Your task to perform on an android device: Clear the cart on bestbuy. Add "energizer triple a" to the cart on bestbuy, then select checkout. Image 0: 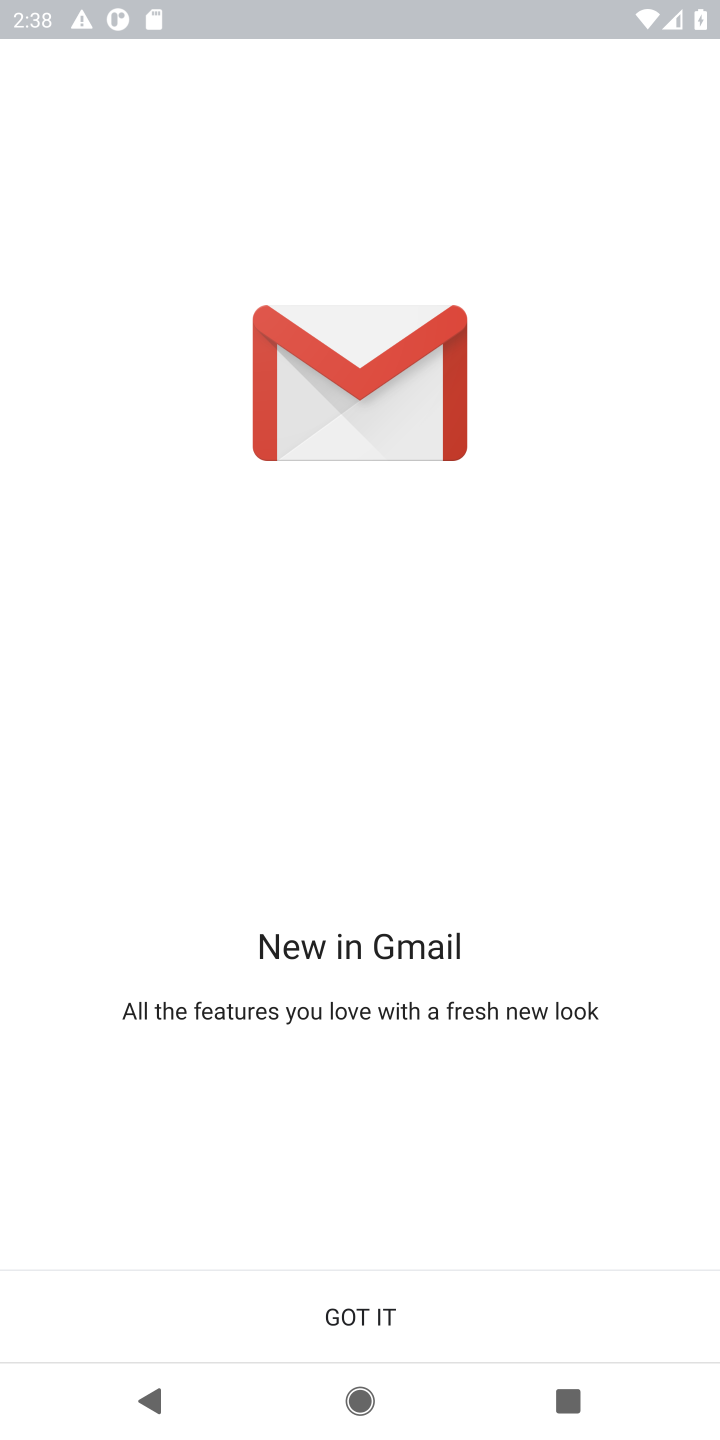
Step 0: press home button
Your task to perform on an android device: Clear the cart on bestbuy. Add "energizer triple a" to the cart on bestbuy, then select checkout. Image 1: 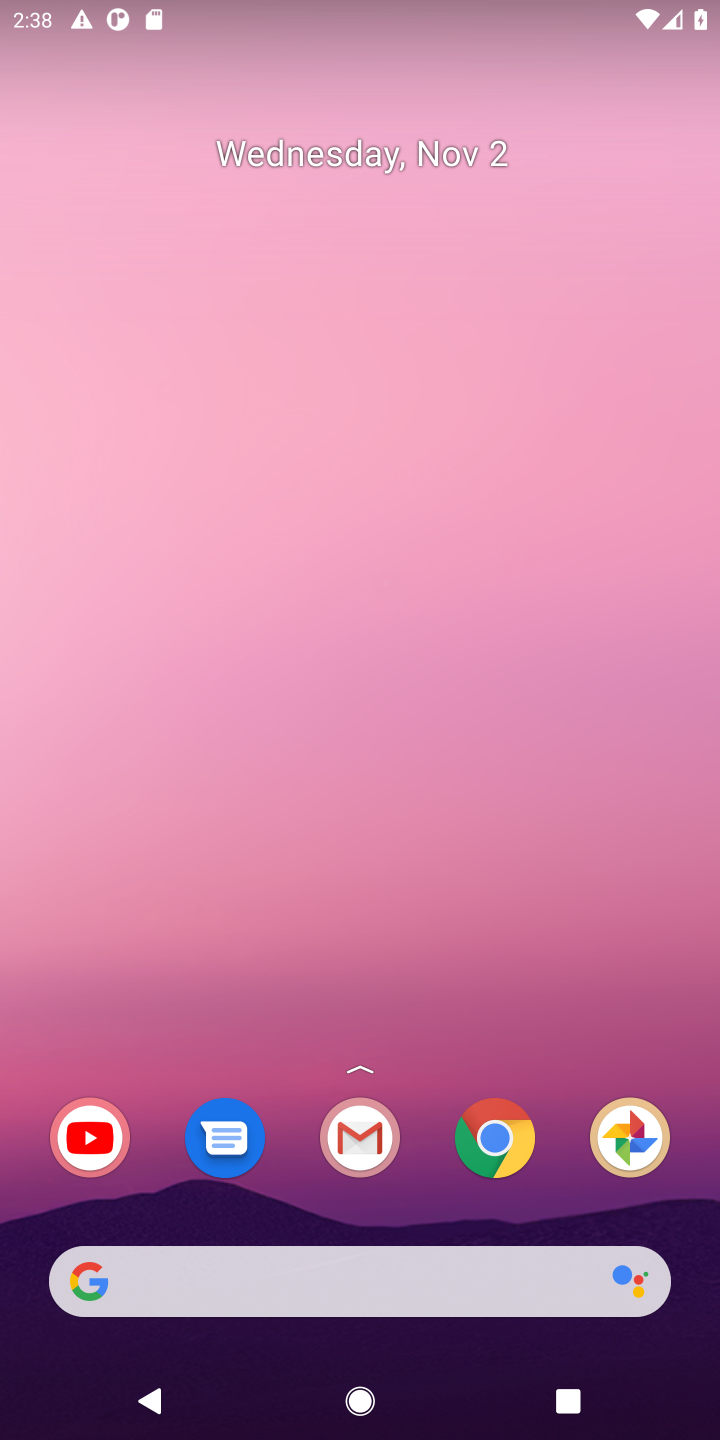
Step 1: click (127, 1265)
Your task to perform on an android device: Clear the cart on bestbuy. Add "energizer triple a" to the cart on bestbuy, then select checkout. Image 2: 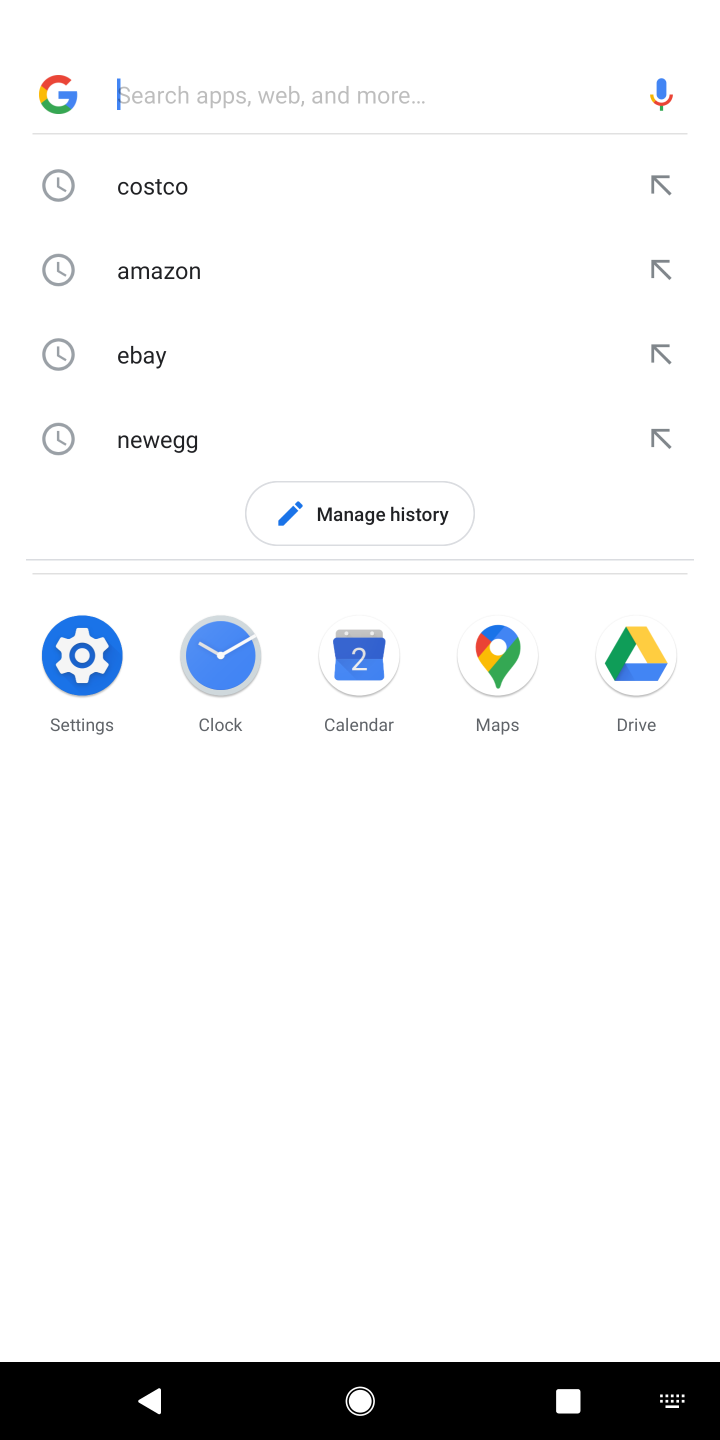
Step 2: press enter
Your task to perform on an android device: Clear the cart on bestbuy. Add "energizer triple a" to the cart on bestbuy, then select checkout. Image 3: 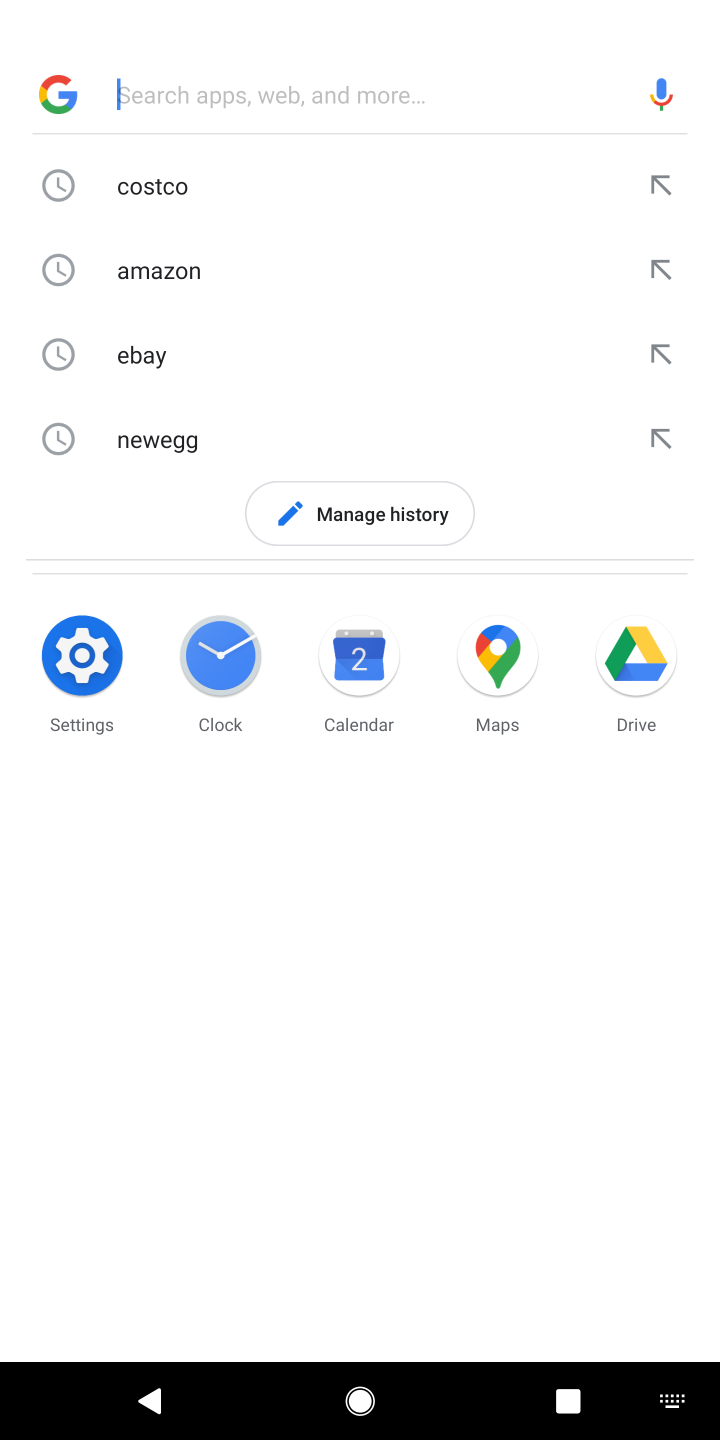
Step 3: type "bestbuy"
Your task to perform on an android device: Clear the cart on bestbuy. Add "energizer triple a" to the cart on bestbuy, then select checkout. Image 4: 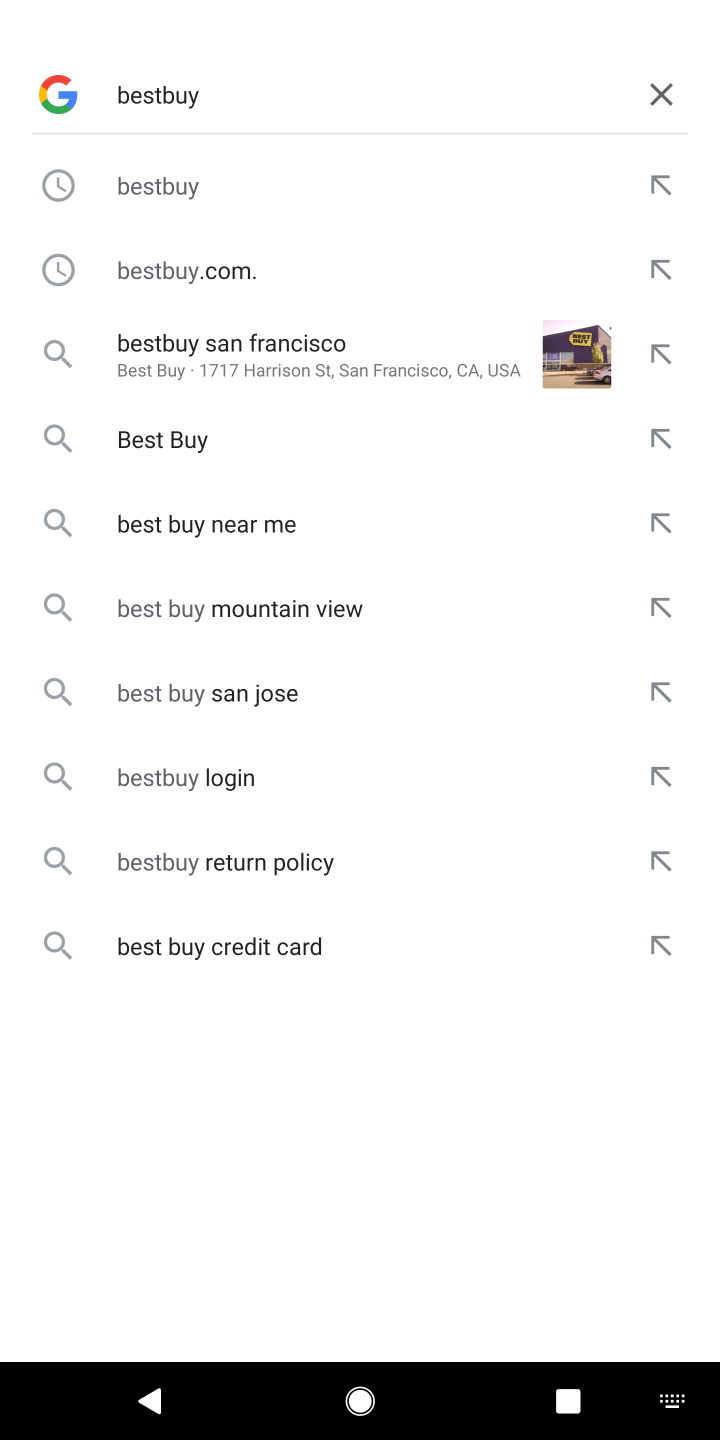
Step 4: press enter
Your task to perform on an android device: Clear the cart on bestbuy. Add "energizer triple a" to the cart on bestbuy, then select checkout. Image 5: 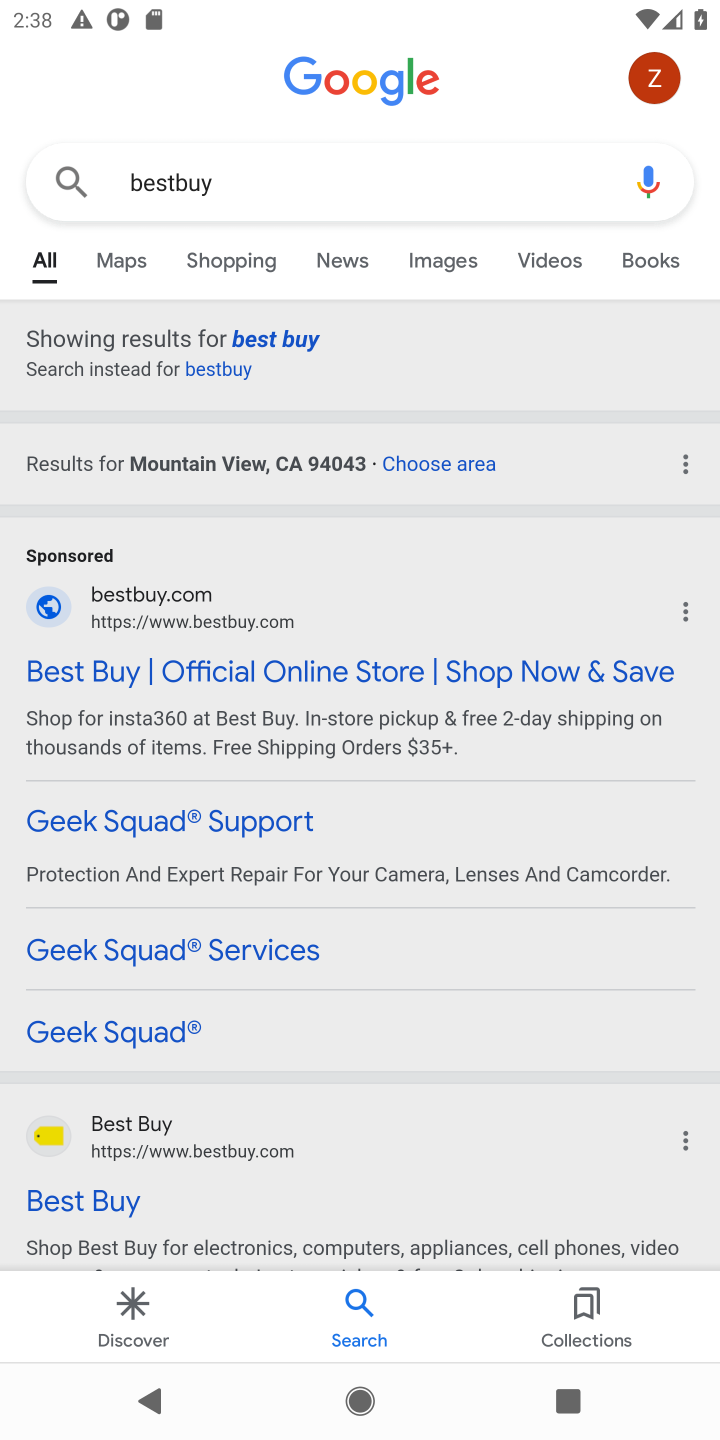
Step 5: click (219, 674)
Your task to perform on an android device: Clear the cart on bestbuy. Add "energizer triple a" to the cart on bestbuy, then select checkout. Image 6: 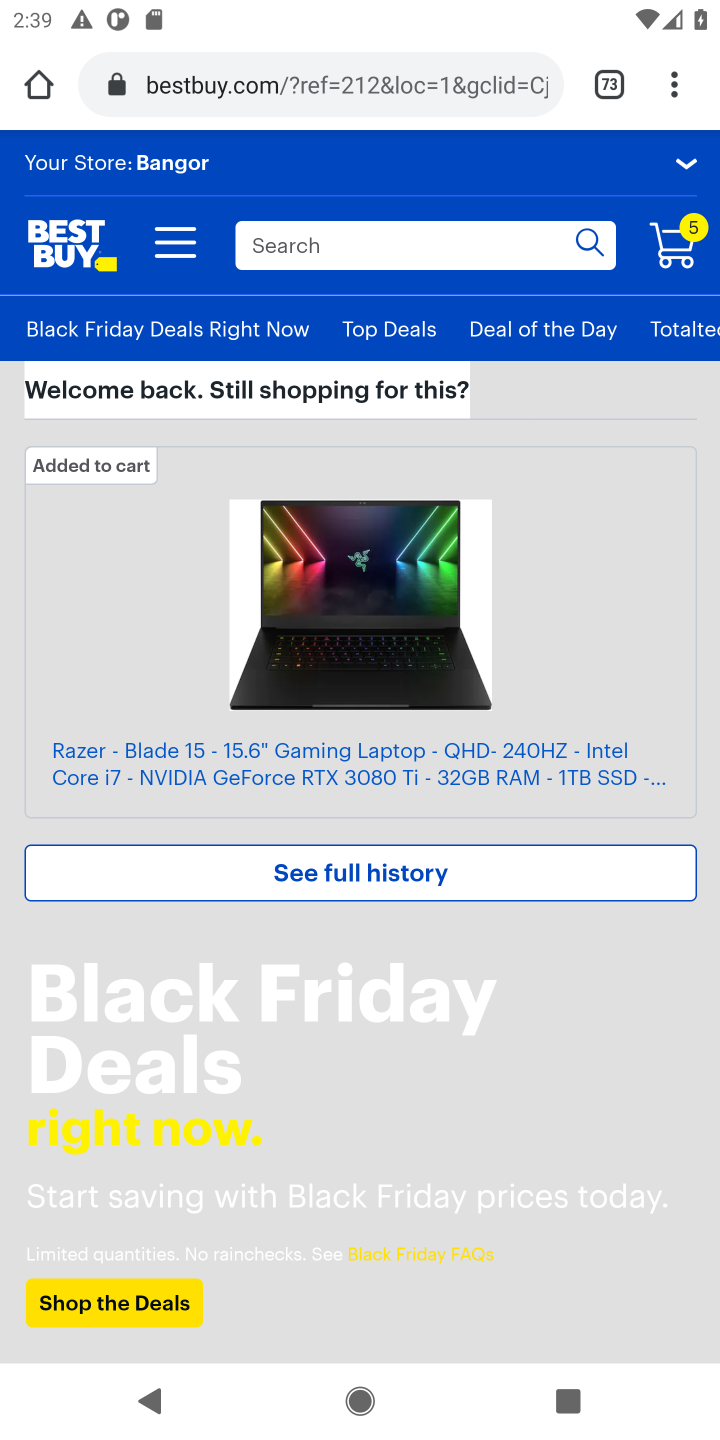
Step 6: click (675, 248)
Your task to perform on an android device: Clear the cart on bestbuy. Add "energizer triple a" to the cart on bestbuy, then select checkout. Image 7: 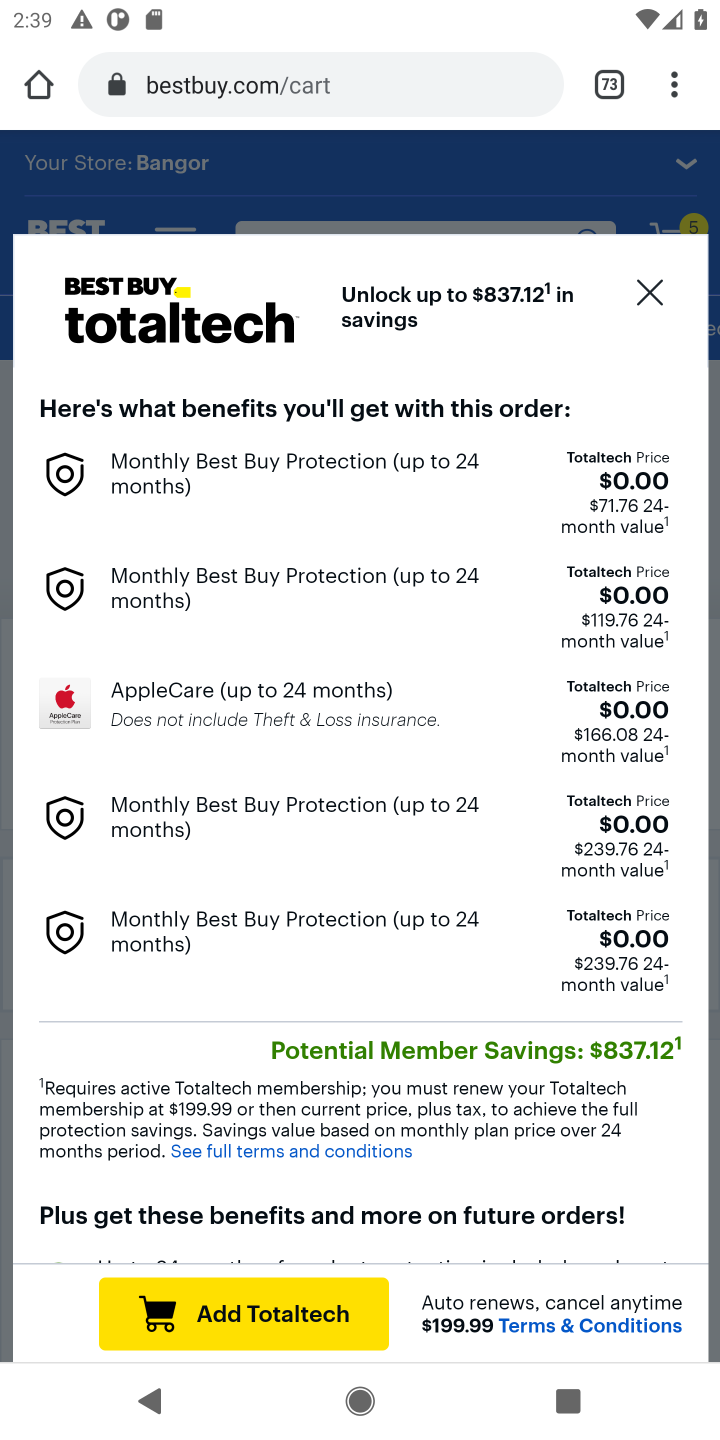
Step 7: click (654, 295)
Your task to perform on an android device: Clear the cart on bestbuy. Add "energizer triple a" to the cart on bestbuy, then select checkout. Image 8: 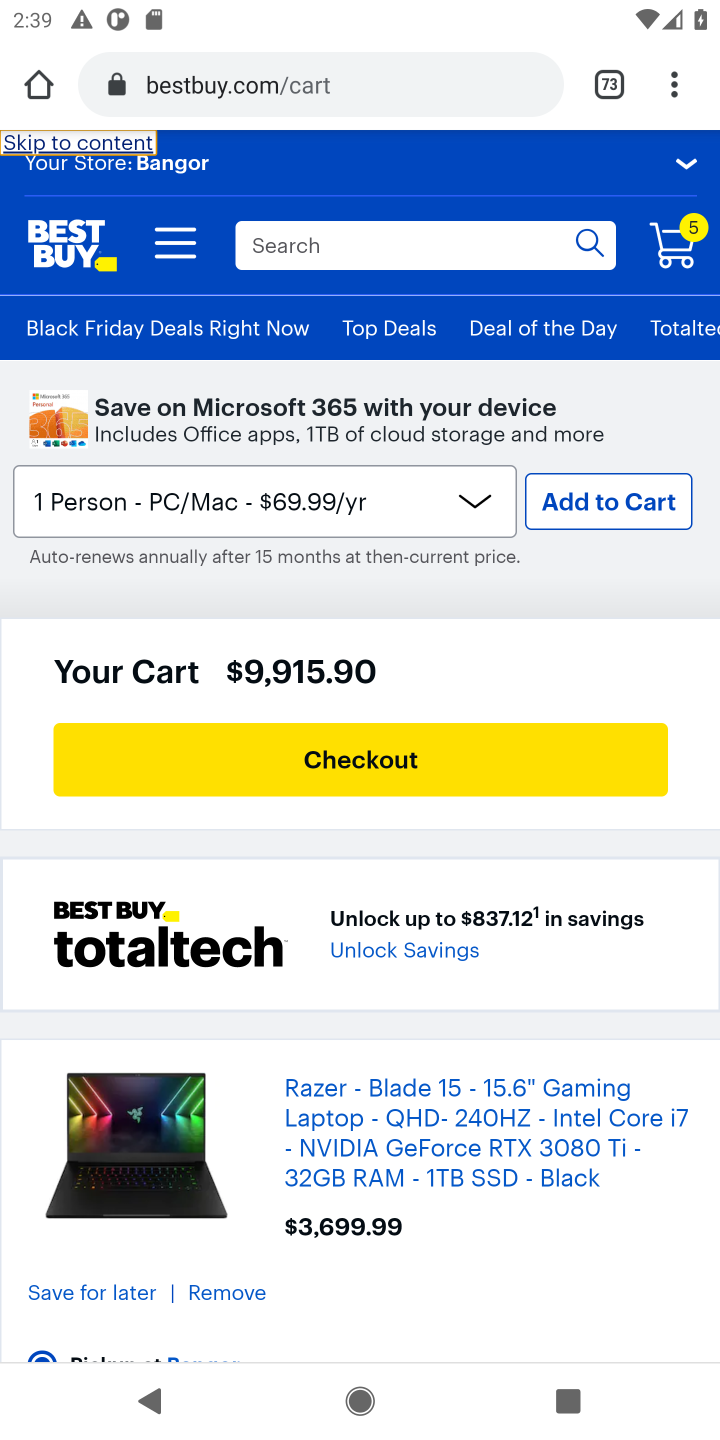
Step 8: click (221, 1296)
Your task to perform on an android device: Clear the cart on bestbuy. Add "energizer triple a" to the cart on bestbuy, then select checkout. Image 9: 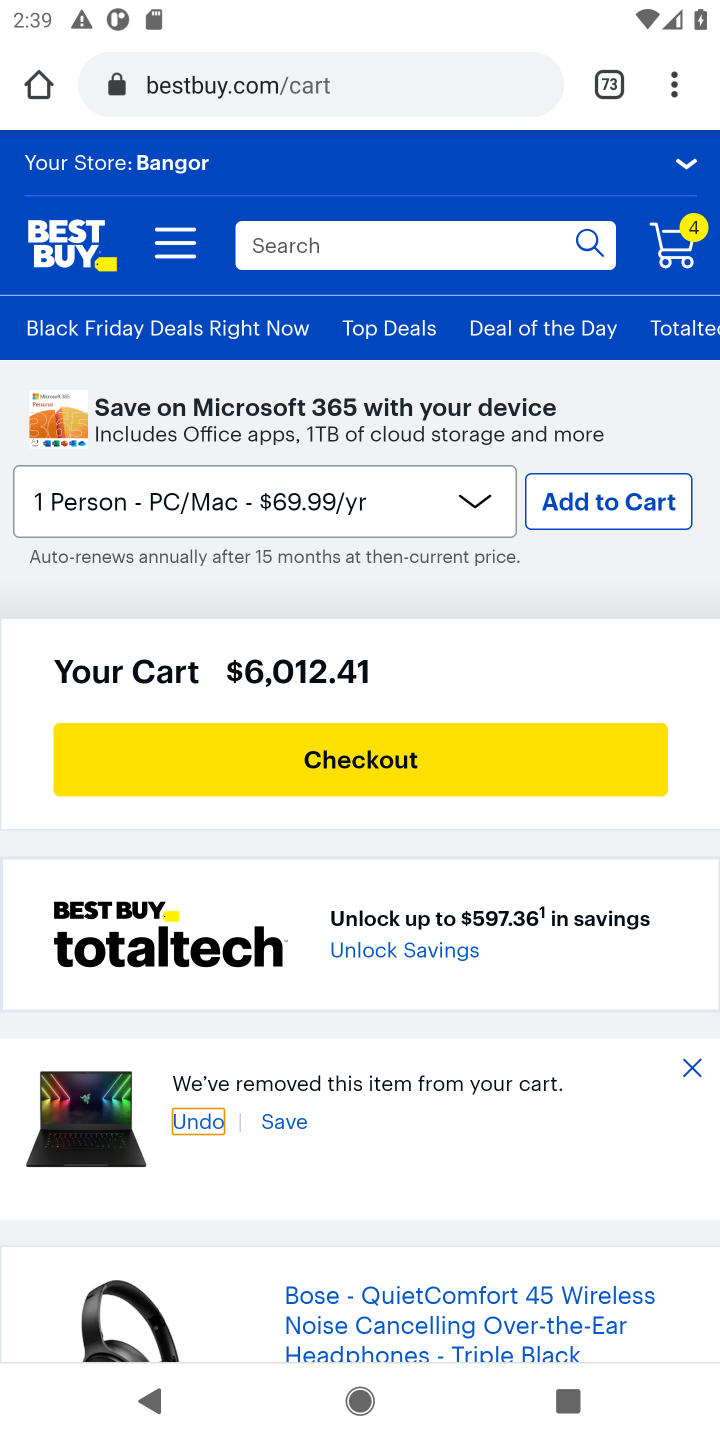
Step 9: drag from (318, 1130) to (369, 693)
Your task to perform on an android device: Clear the cart on bestbuy. Add "energizer triple a" to the cart on bestbuy, then select checkout. Image 10: 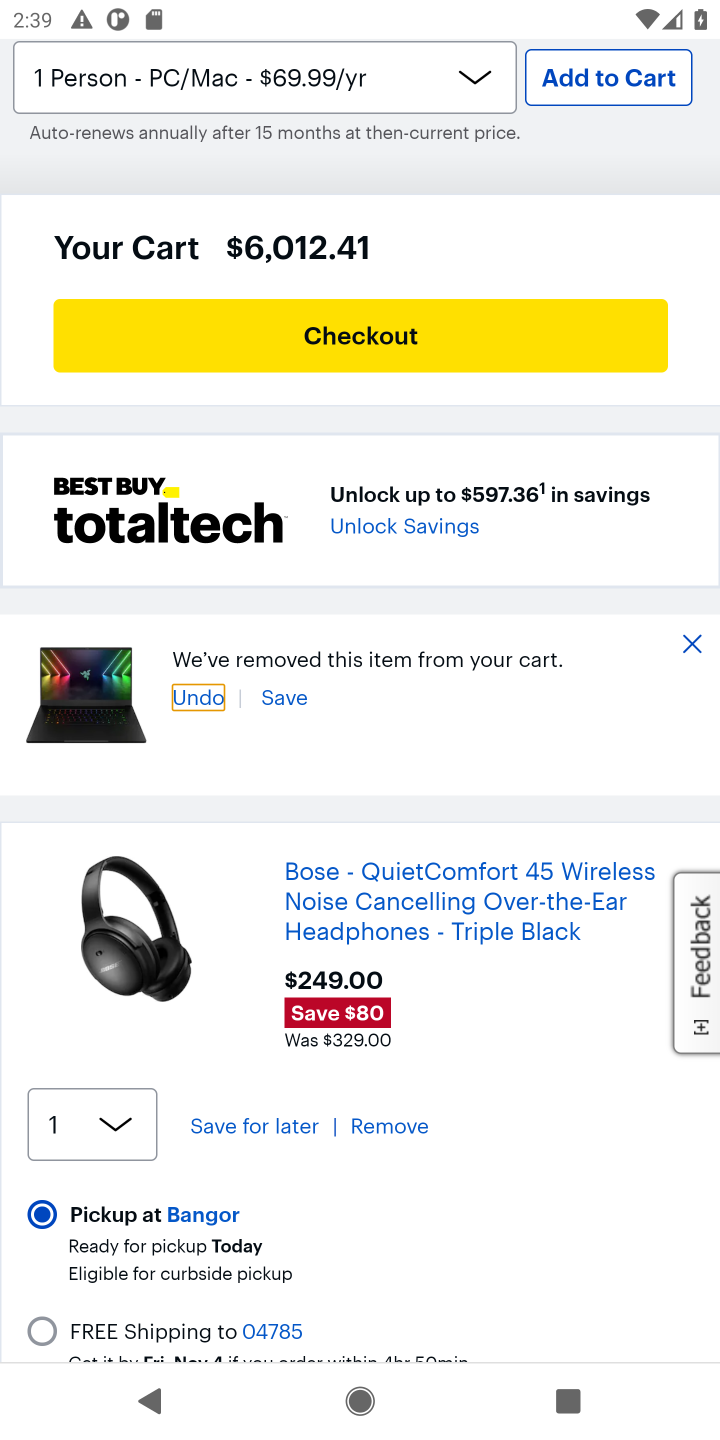
Step 10: drag from (454, 1161) to (484, 783)
Your task to perform on an android device: Clear the cart on bestbuy. Add "energizer triple a" to the cart on bestbuy, then select checkout. Image 11: 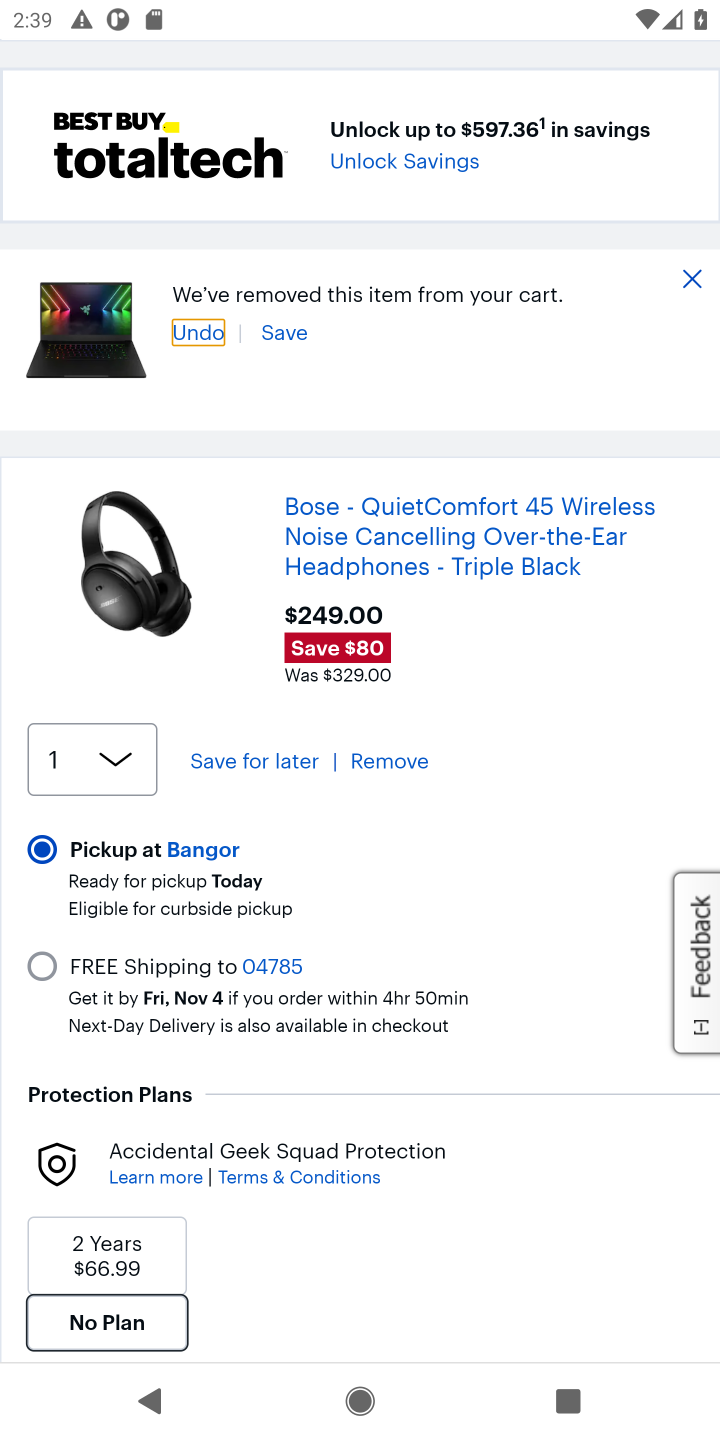
Step 11: click (404, 763)
Your task to perform on an android device: Clear the cart on bestbuy. Add "energizer triple a" to the cart on bestbuy, then select checkout. Image 12: 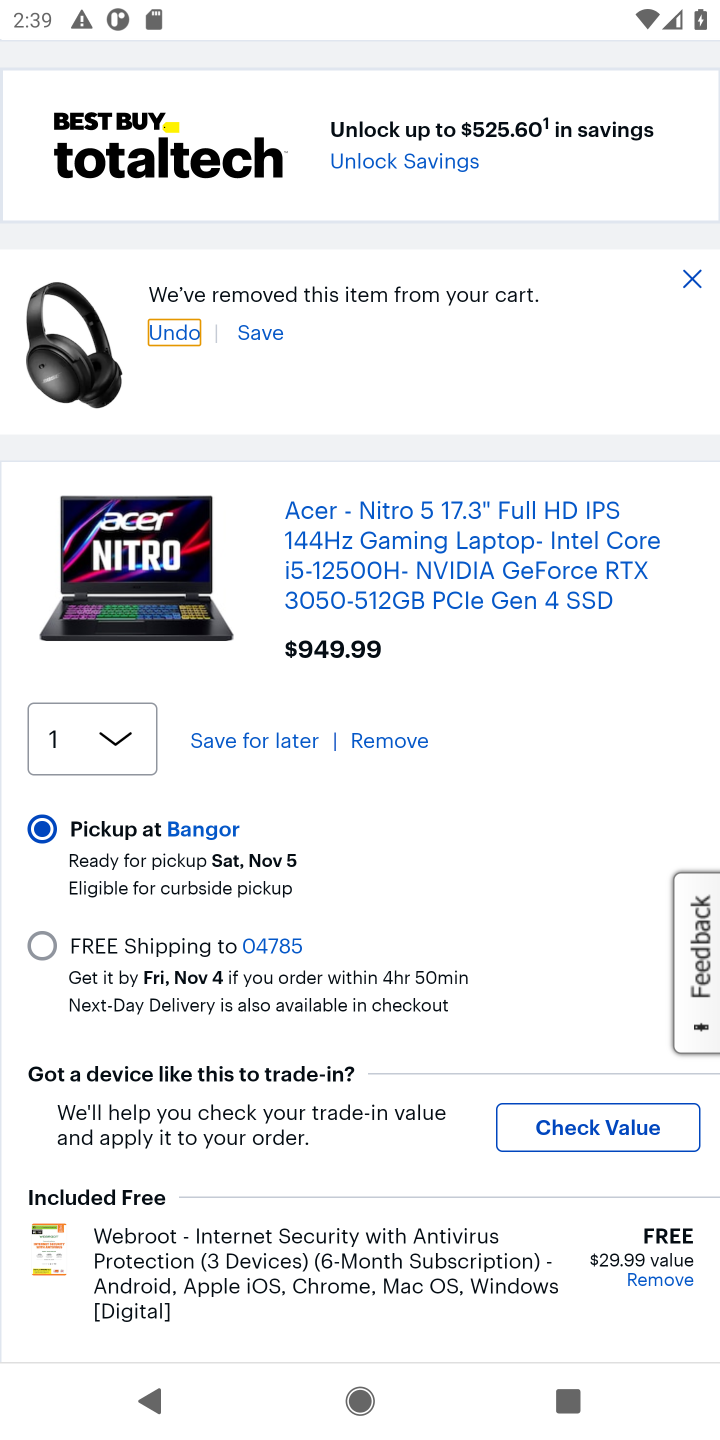
Step 12: click (400, 741)
Your task to perform on an android device: Clear the cart on bestbuy. Add "energizer triple a" to the cart on bestbuy, then select checkout. Image 13: 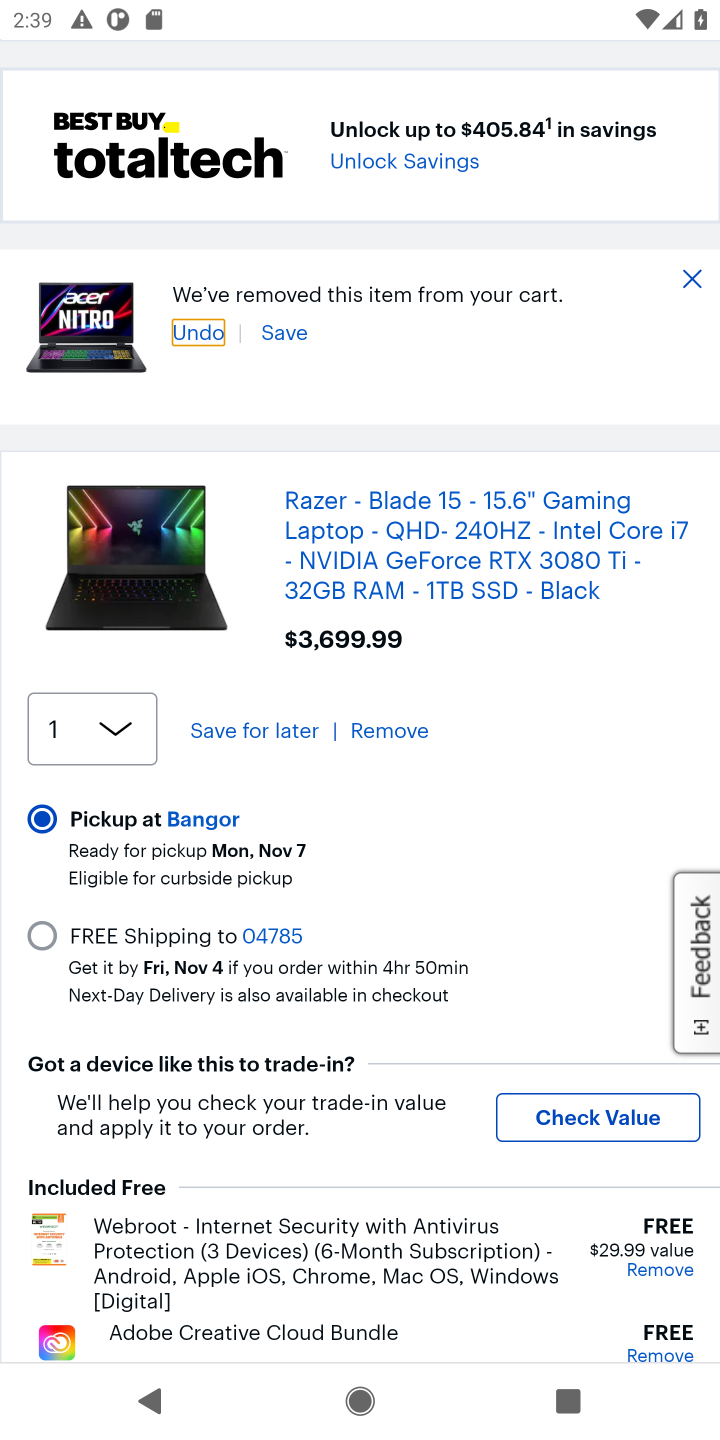
Step 13: click (384, 725)
Your task to perform on an android device: Clear the cart on bestbuy. Add "energizer triple a" to the cart on bestbuy, then select checkout. Image 14: 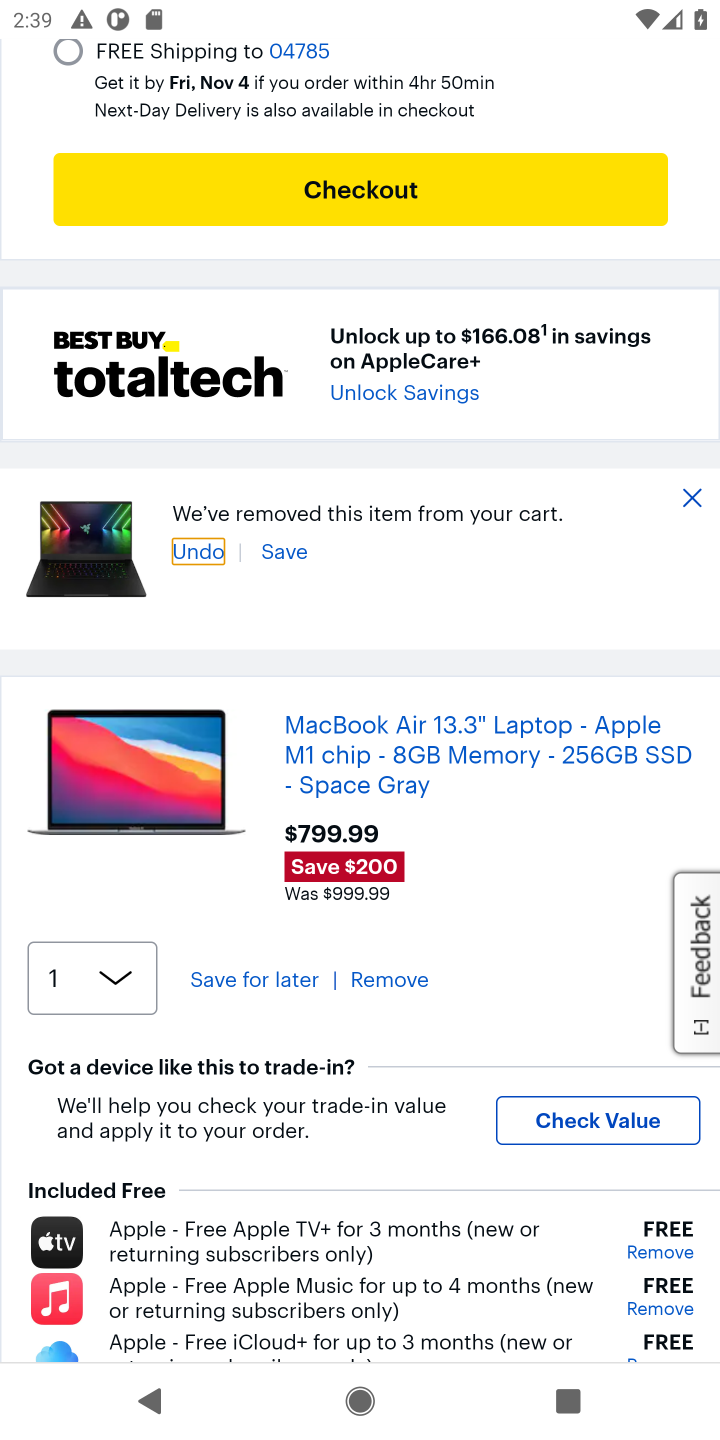
Step 14: click (402, 975)
Your task to perform on an android device: Clear the cart on bestbuy. Add "energizer triple a" to the cart on bestbuy, then select checkout. Image 15: 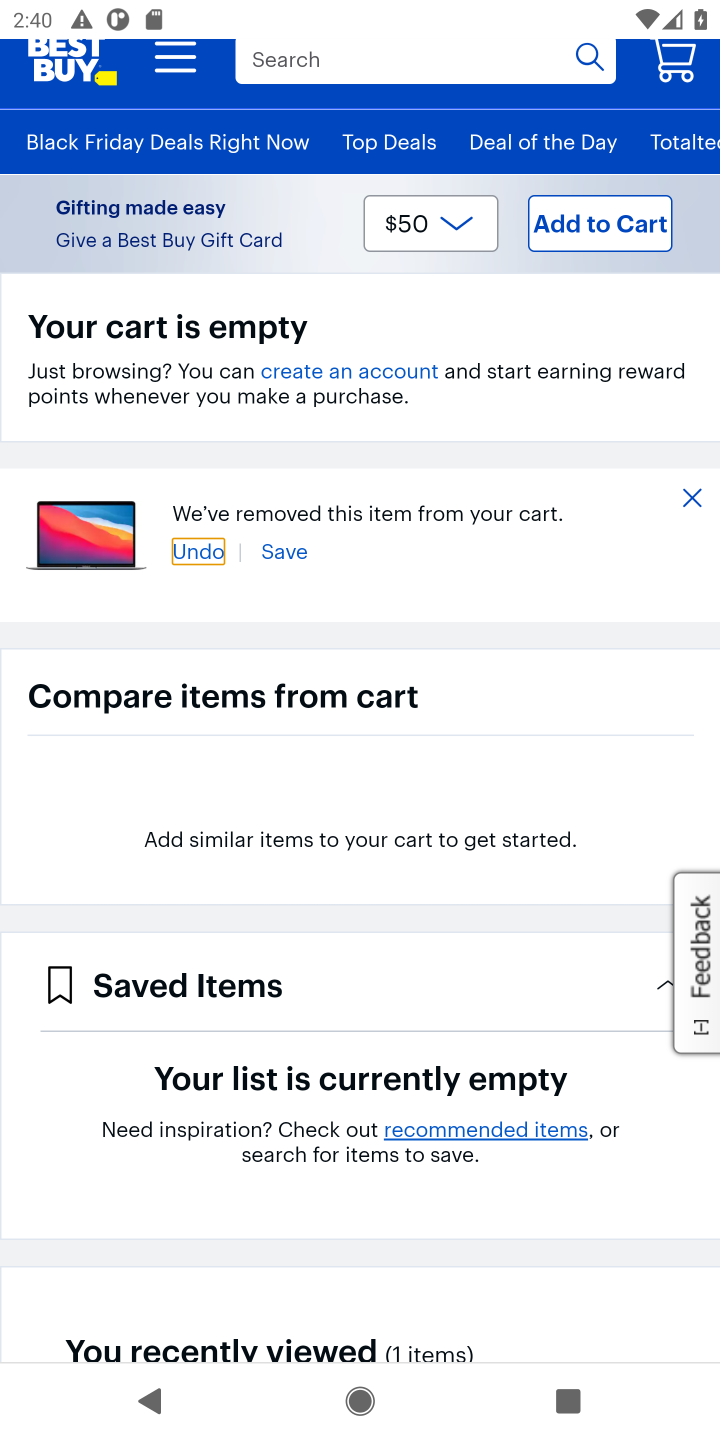
Step 15: click (583, 52)
Your task to perform on an android device: Clear the cart on bestbuy. Add "energizer triple a" to the cart on bestbuy, then select checkout. Image 16: 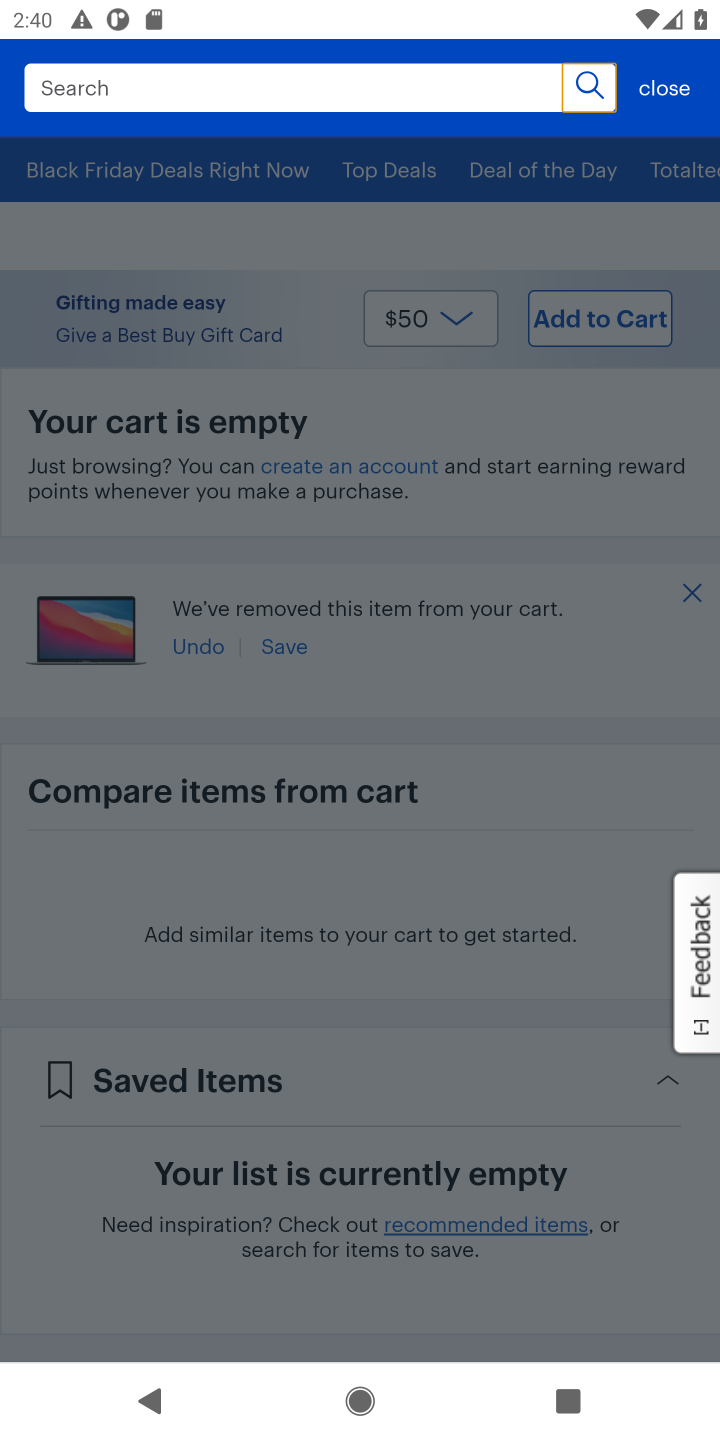
Step 16: click (112, 83)
Your task to perform on an android device: Clear the cart on bestbuy. Add "energizer triple a" to the cart on bestbuy, then select checkout. Image 17: 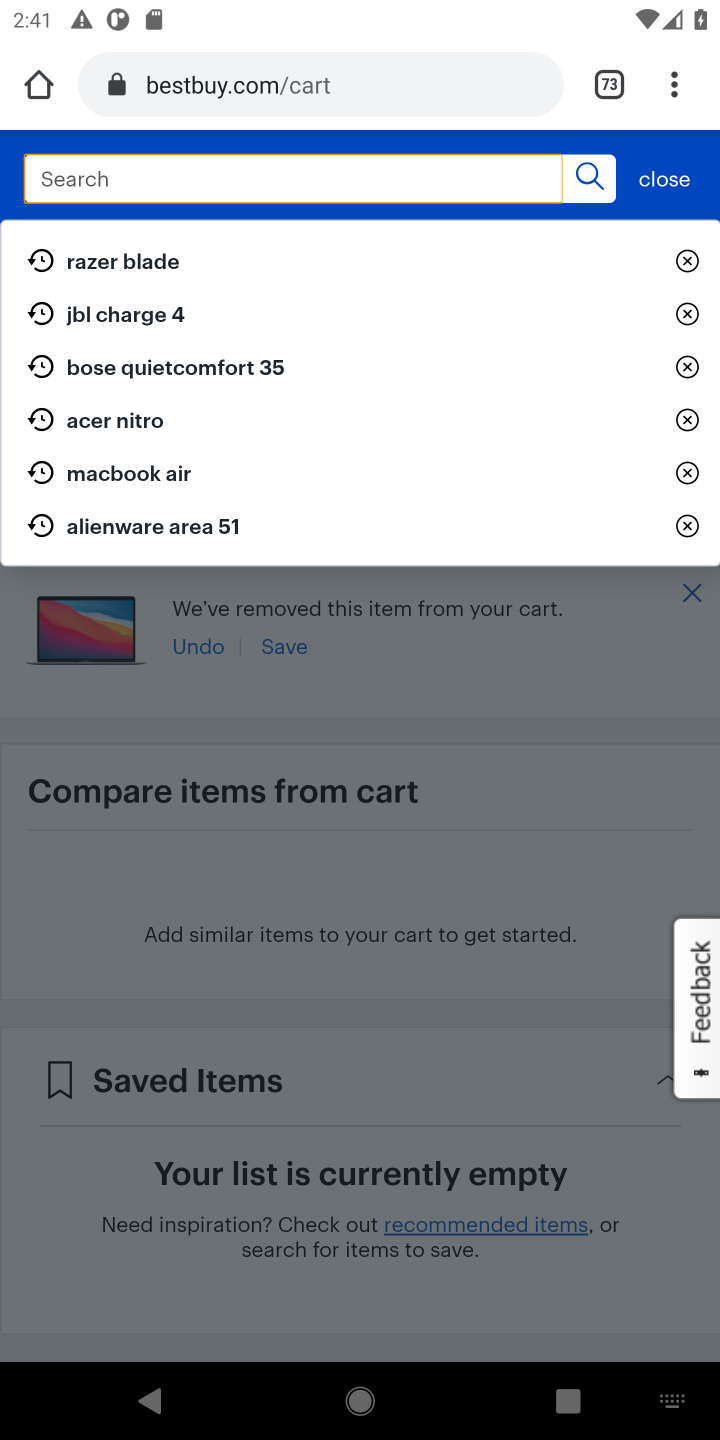
Step 17: type "energizer triple a"
Your task to perform on an android device: Clear the cart on bestbuy. Add "energizer triple a" to the cart on bestbuy, then select checkout. Image 18: 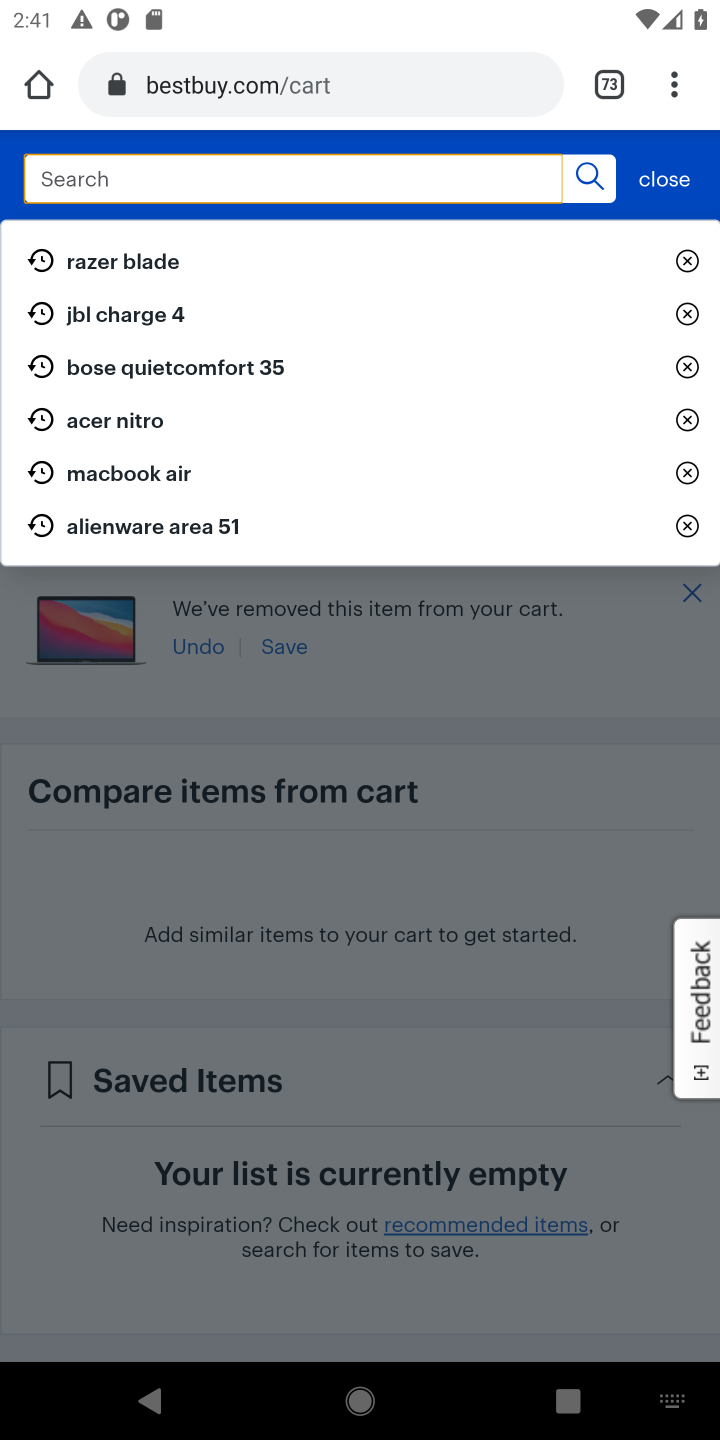
Step 18: press enter
Your task to perform on an android device: Clear the cart on bestbuy. Add "energizer triple a" to the cart on bestbuy, then select checkout. Image 19: 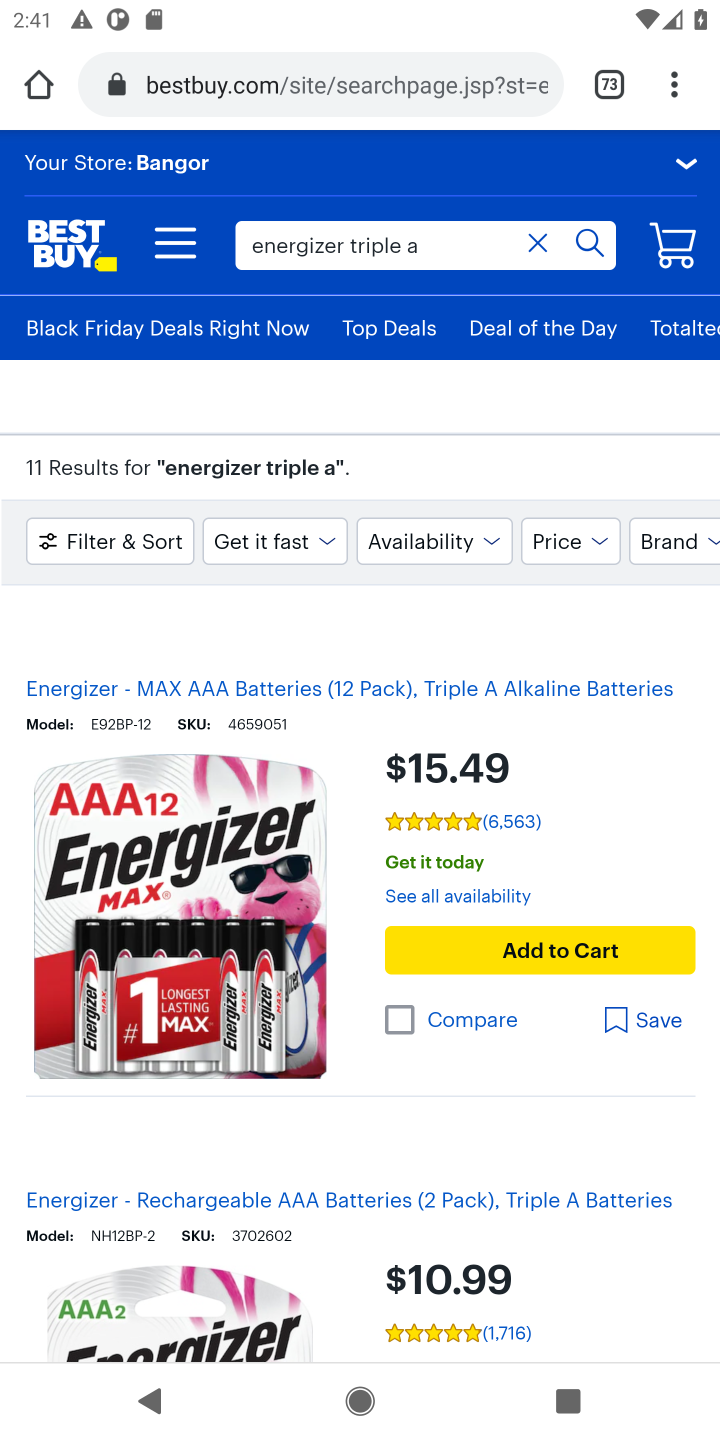
Step 19: drag from (518, 1050) to (545, 696)
Your task to perform on an android device: Clear the cart on bestbuy. Add "energizer triple a" to the cart on bestbuy, then select checkout. Image 20: 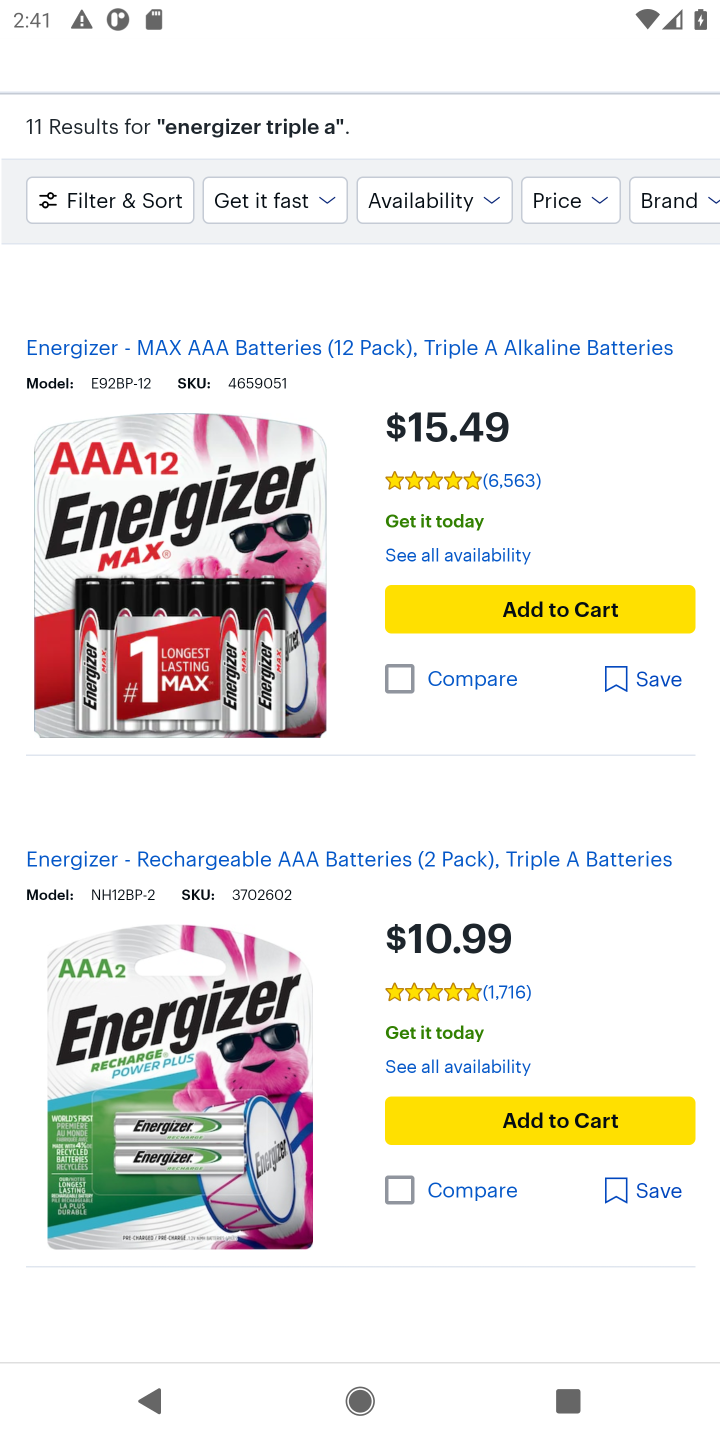
Step 20: click (568, 610)
Your task to perform on an android device: Clear the cart on bestbuy. Add "energizer triple a" to the cart on bestbuy, then select checkout. Image 21: 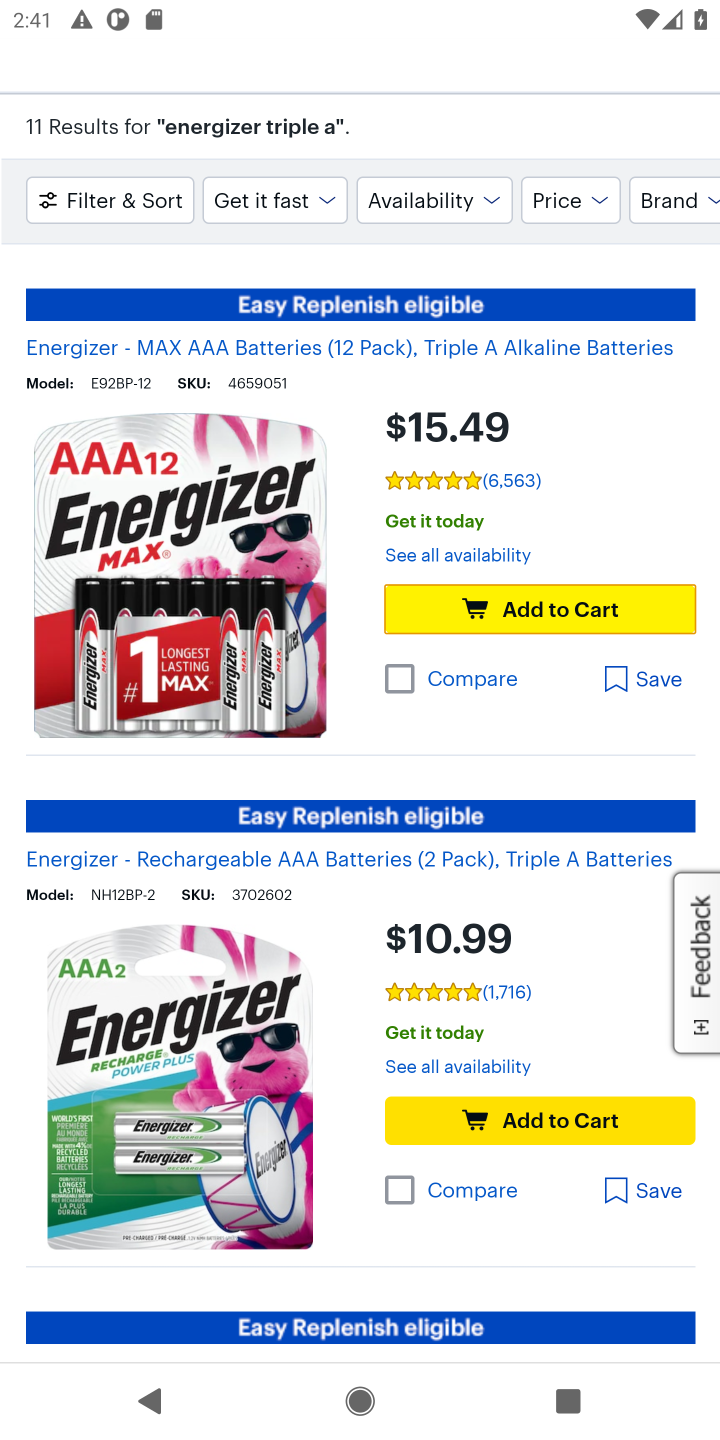
Step 21: click (568, 610)
Your task to perform on an android device: Clear the cart on bestbuy. Add "energizer triple a" to the cart on bestbuy, then select checkout. Image 22: 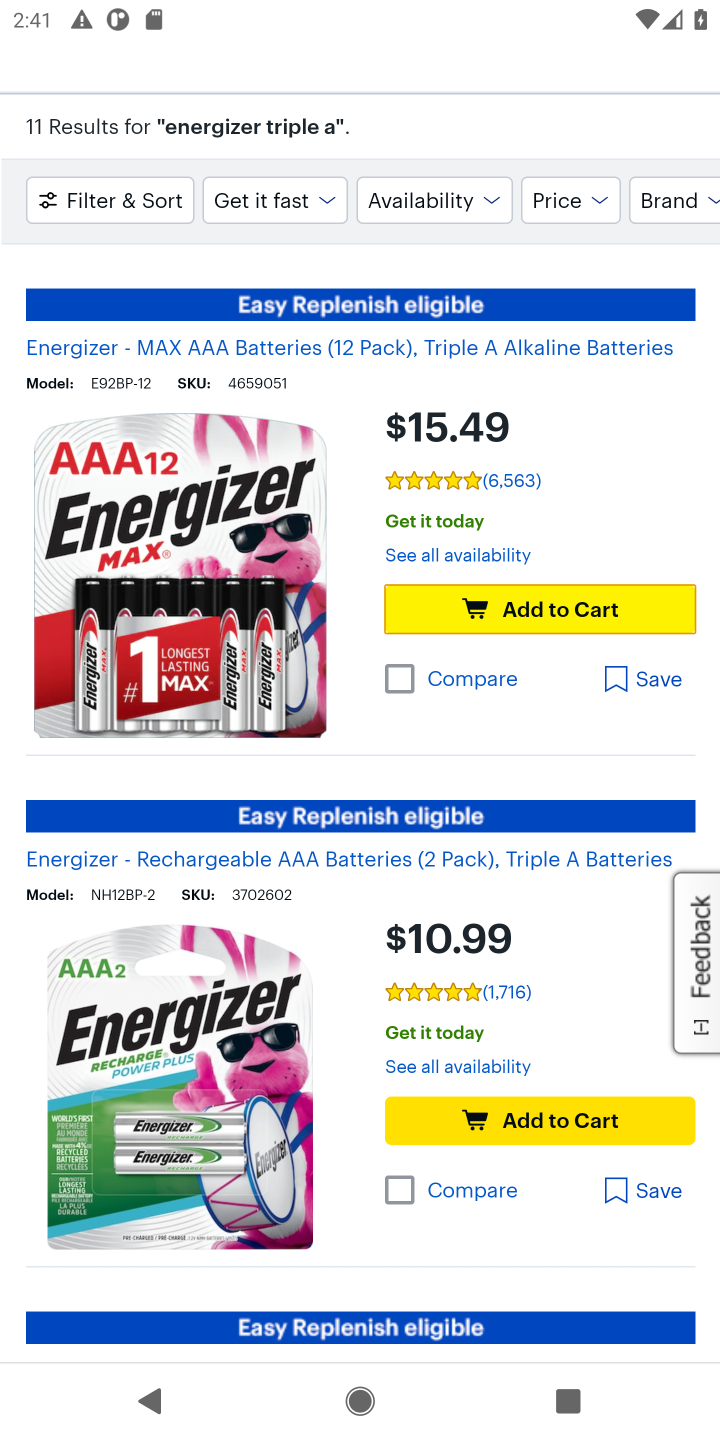
Step 22: click (538, 607)
Your task to perform on an android device: Clear the cart on bestbuy. Add "energizer triple a" to the cart on bestbuy, then select checkout. Image 23: 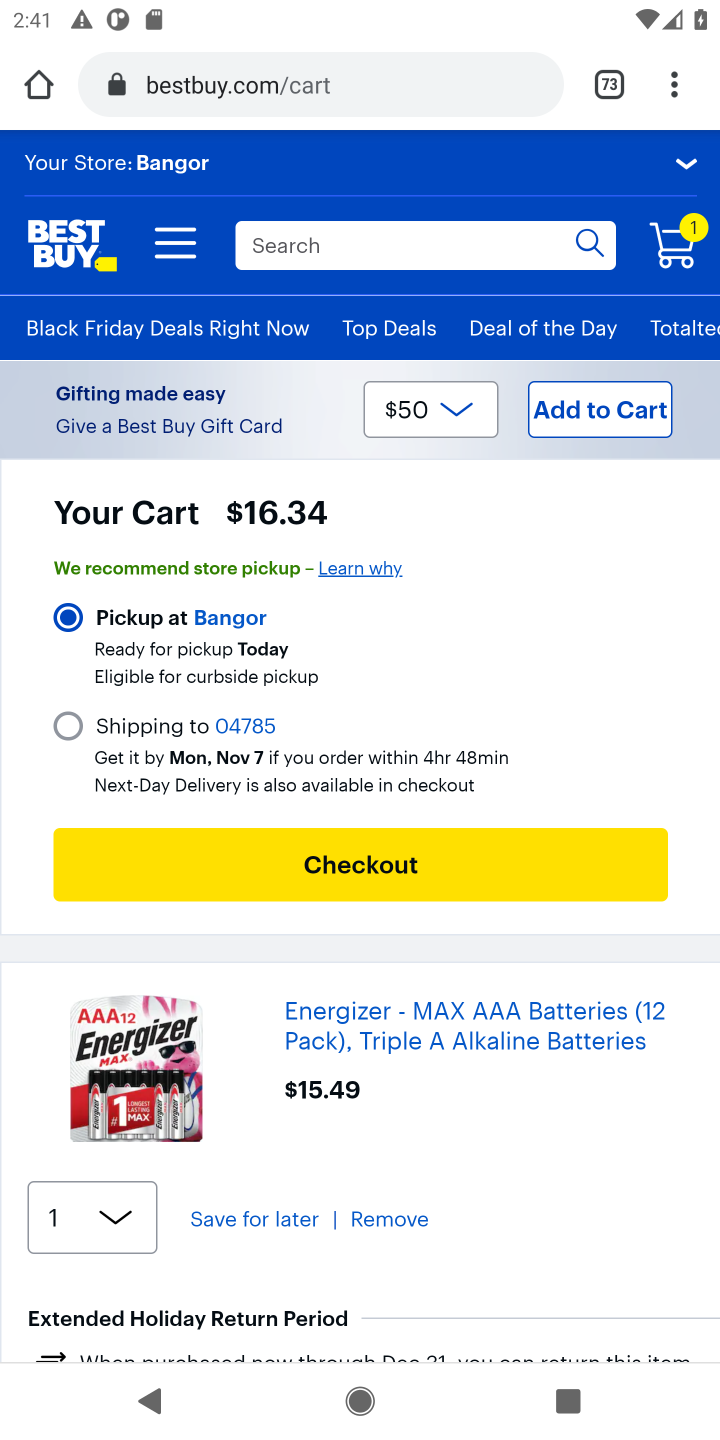
Step 23: click (346, 860)
Your task to perform on an android device: Clear the cart on bestbuy. Add "energizer triple a" to the cart on bestbuy, then select checkout. Image 24: 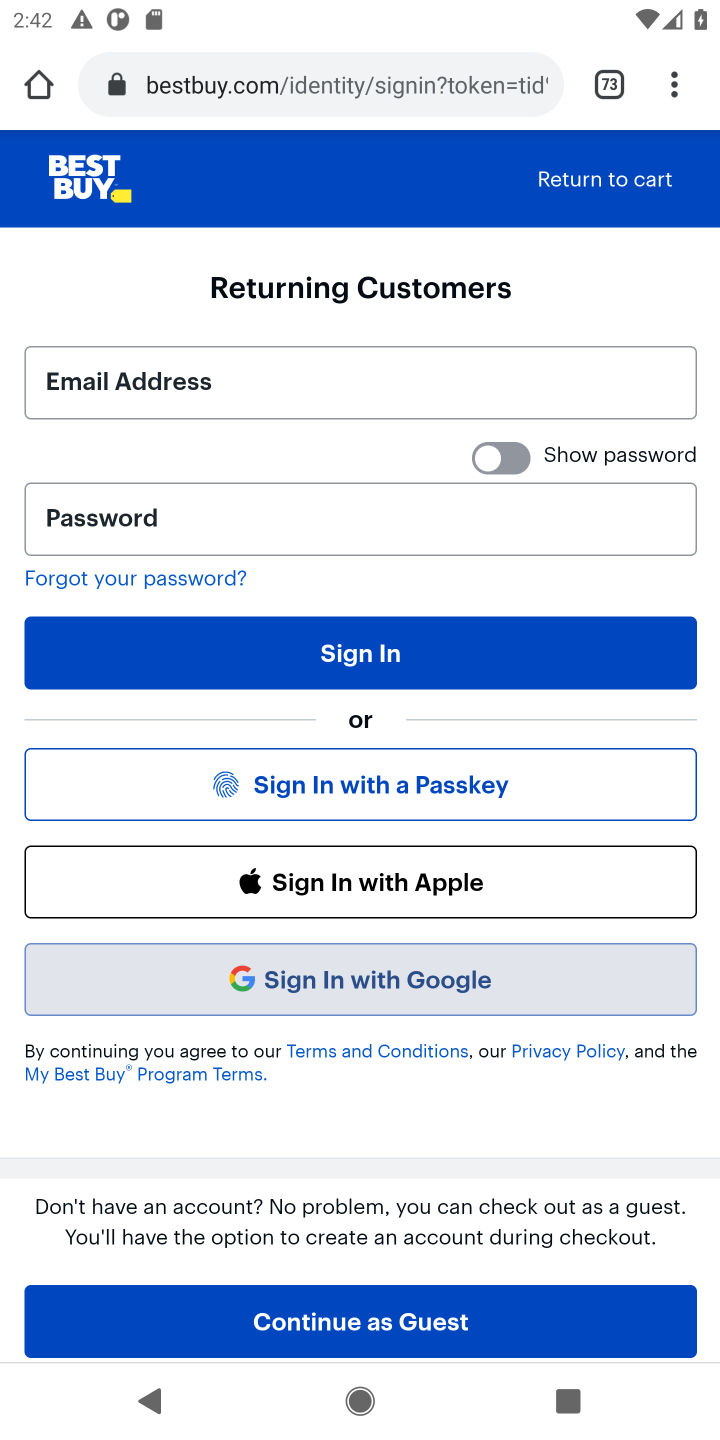
Step 24: task complete